Your task to perform on an android device: What's on my calendar tomorrow? Image 0: 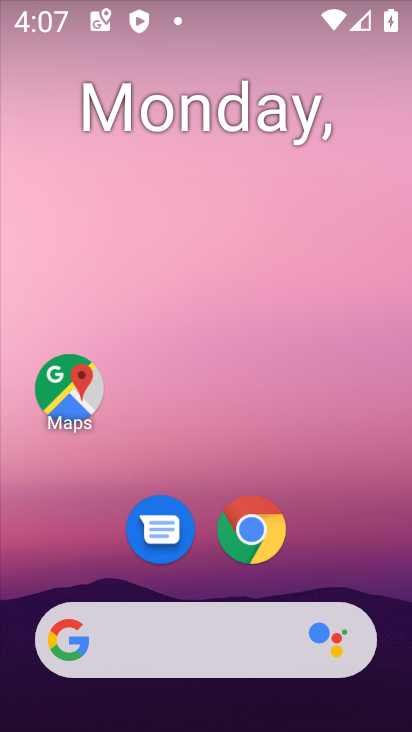
Step 0: drag from (215, 726) to (218, 241)
Your task to perform on an android device: What's on my calendar tomorrow? Image 1: 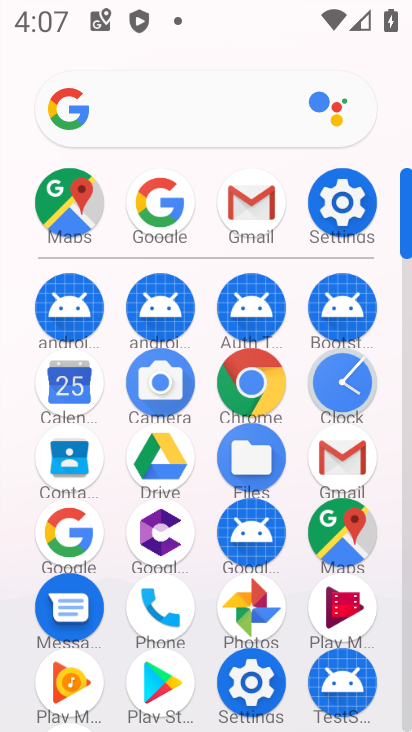
Step 1: click (67, 393)
Your task to perform on an android device: What's on my calendar tomorrow? Image 2: 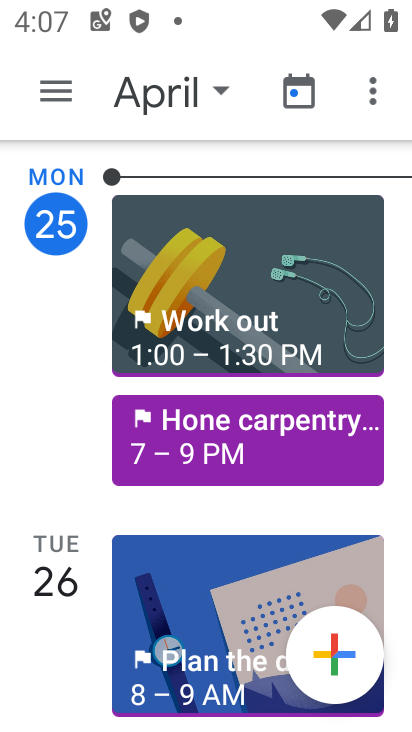
Step 2: click (148, 95)
Your task to perform on an android device: What's on my calendar tomorrow? Image 3: 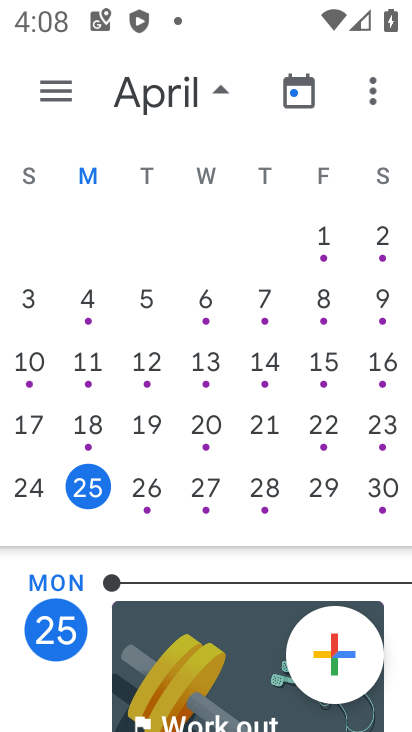
Step 3: click (147, 482)
Your task to perform on an android device: What's on my calendar tomorrow? Image 4: 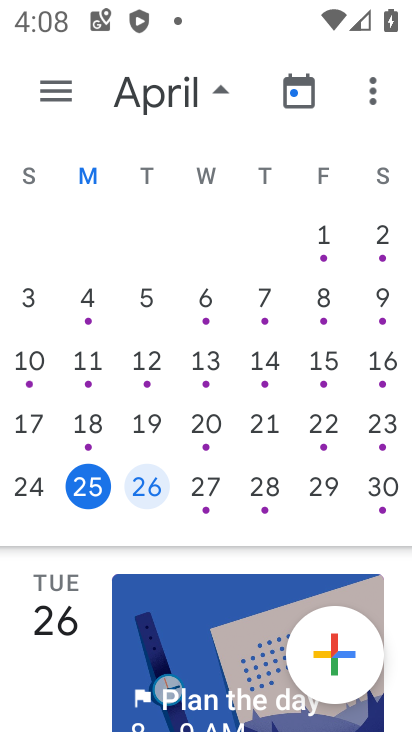
Step 4: click (147, 482)
Your task to perform on an android device: What's on my calendar tomorrow? Image 5: 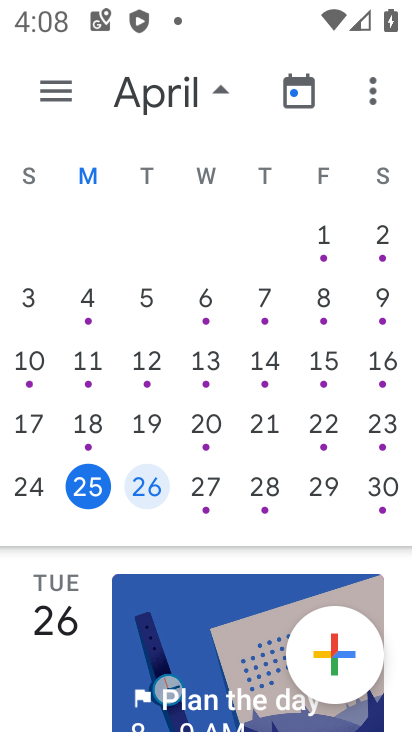
Step 5: click (219, 80)
Your task to perform on an android device: What's on my calendar tomorrow? Image 6: 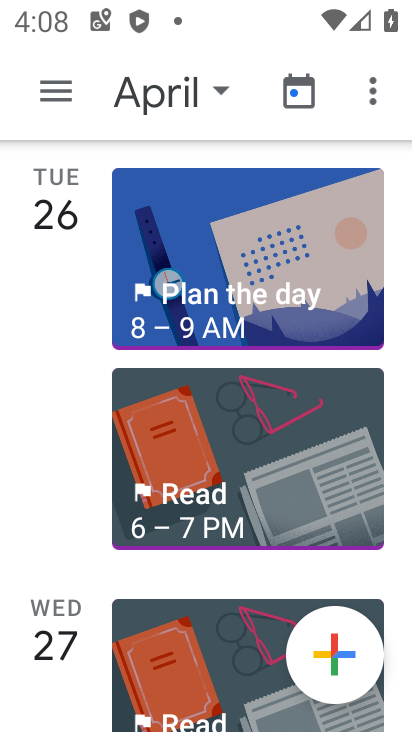
Step 6: task complete